Your task to perform on an android device: See recent photos Image 0: 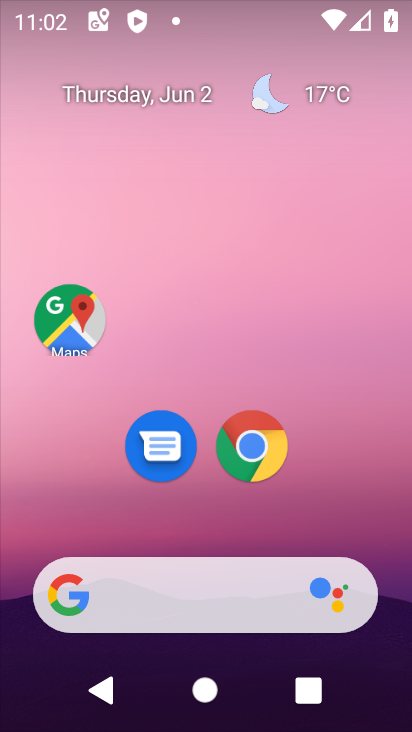
Step 0: drag from (368, 503) to (357, 140)
Your task to perform on an android device: See recent photos Image 1: 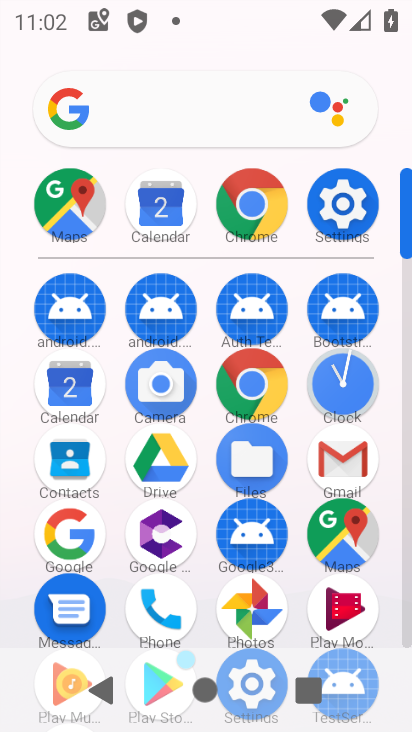
Step 1: click (262, 609)
Your task to perform on an android device: See recent photos Image 2: 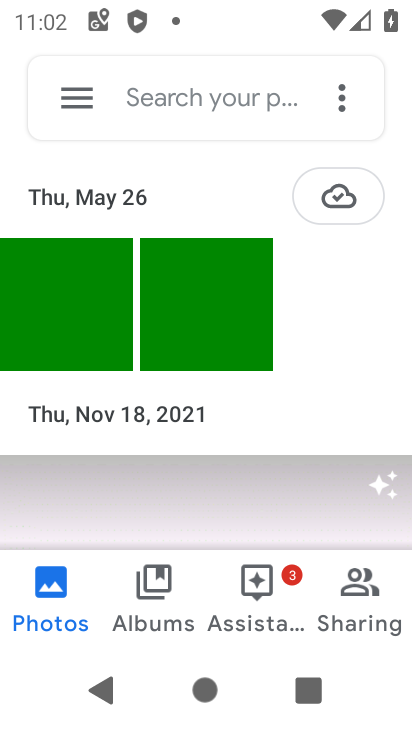
Step 2: click (84, 327)
Your task to perform on an android device: See recent photos Image 3: 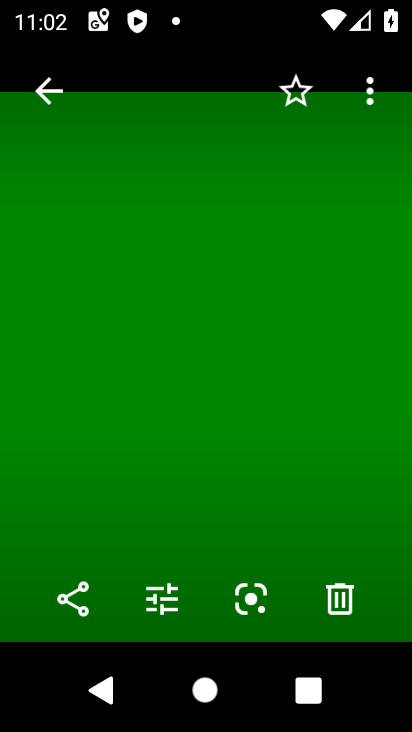
Step 3: task complete